Your task to perform on an android device: Go to Wikipedia Image 0: 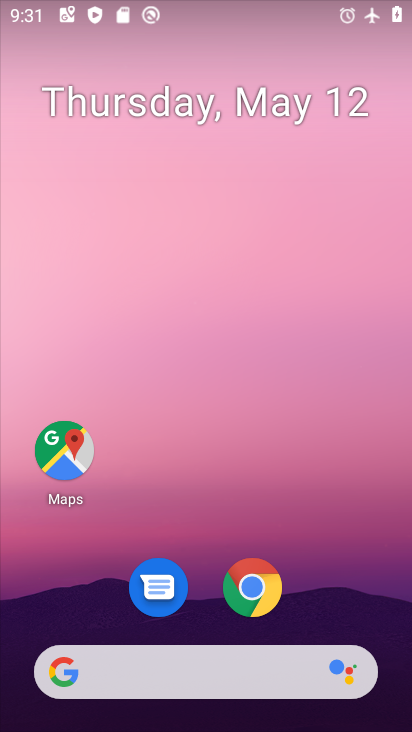
Step 0: drag from (331, 615) to (380, 174)
Your task to perform on an android device: Go to Wikipedia Image 1: 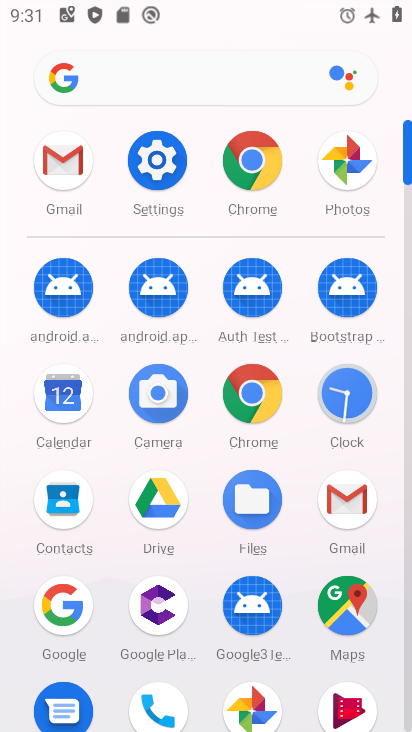
Step 1: click (254, 156)
Your task to perform on an android device: Go to Wikipedia Image 2: 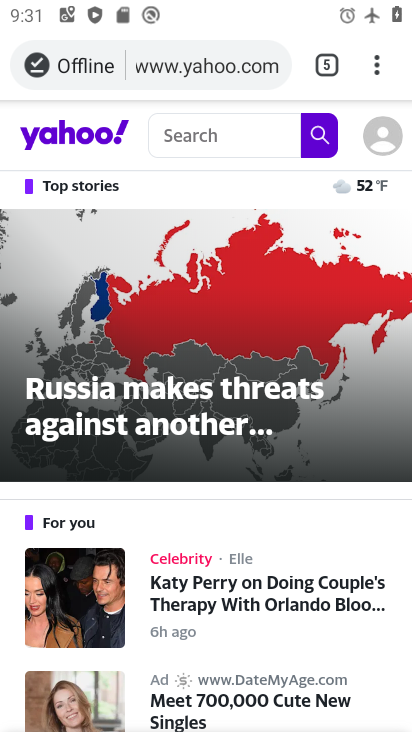
Step 2: click (368, 58)
Your task to perform on an android device: Go to Wikipedia Image 3: 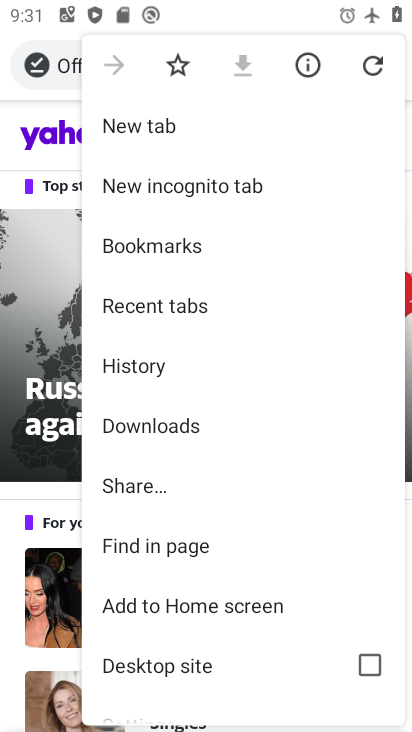
Step 3: click (159, 123)
Your task to perform on an android device: Go to Wikipedia Image 4: 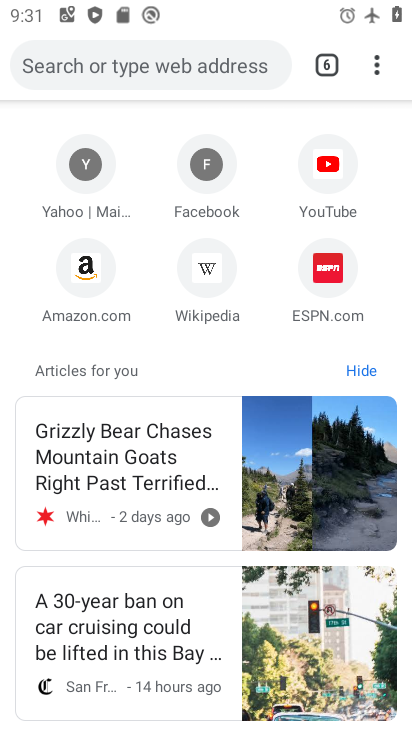
Step 4: click (206, 267)
Your task to perform on an android device: Go to Wikipedia Image 5: 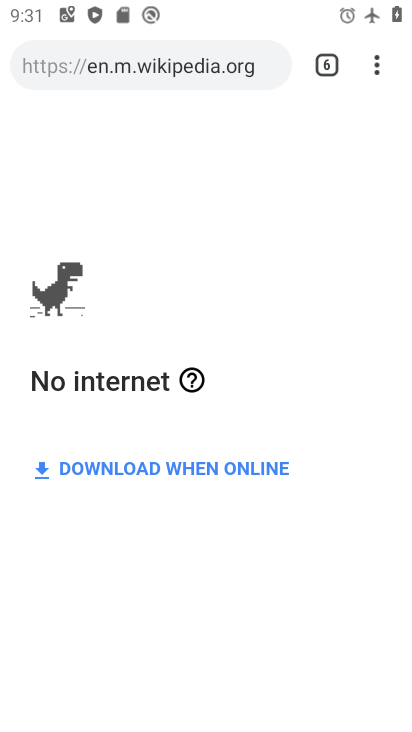
Step 5: click (369, 57)
Your task to perform on an android device: Go to Wikipedia Image 6: 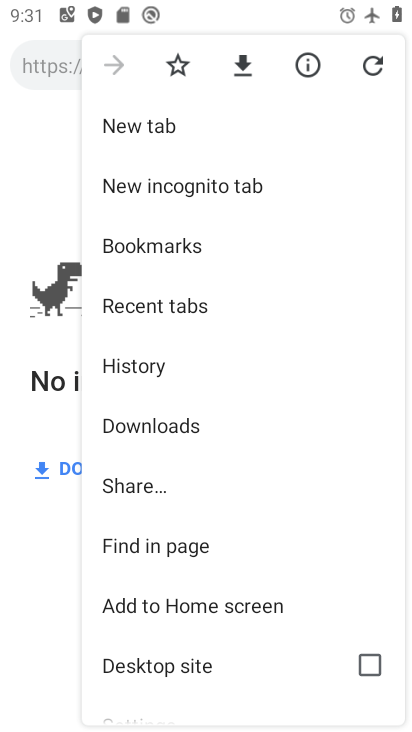
Step 6: drag from (225, 575) to (261, 317)
Your task to perform on an android device: Go to Wikipedia Image 7: 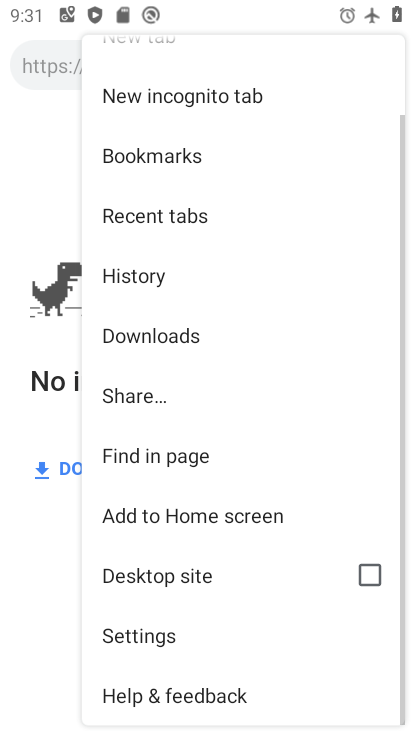
Step 7: drag from (181, 0) to (139, 441)
Your task to perform on an android device: Go to Wikipedia Image 8: 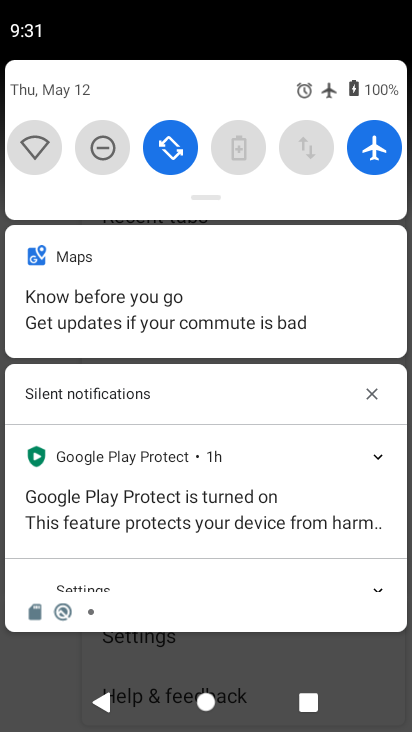
Step 8: click (377, 142)
Your task to perform on an android device: Go to Wikipedia Image 9: 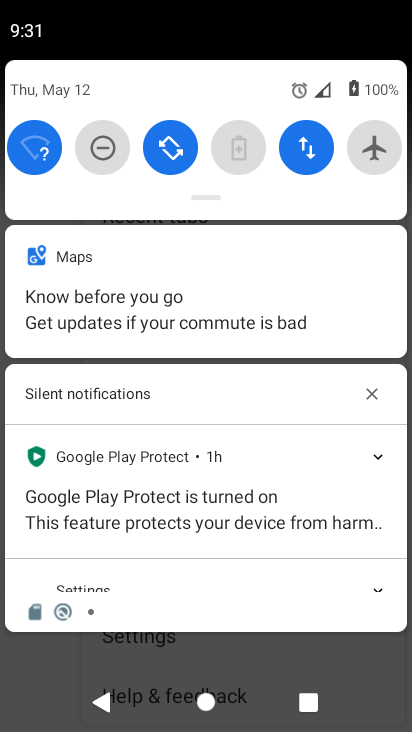
Step 9: click (205, 648)
Your task to perform on an android device: Go to Wikipedia Image 10: 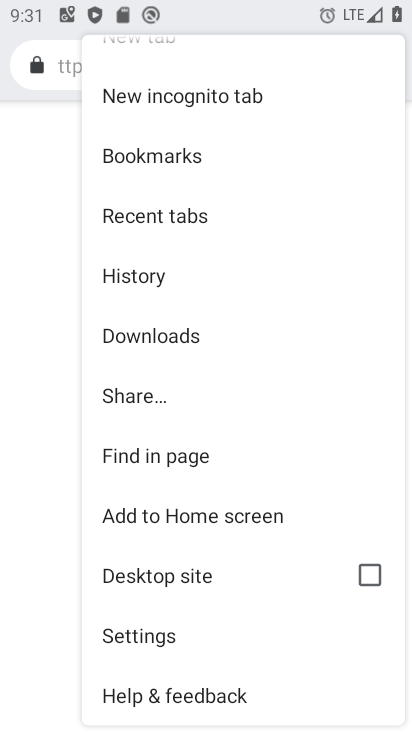
Step 10: click (42, 196)
Your task to perform on an android device: Go to Wikipedia Image 11: 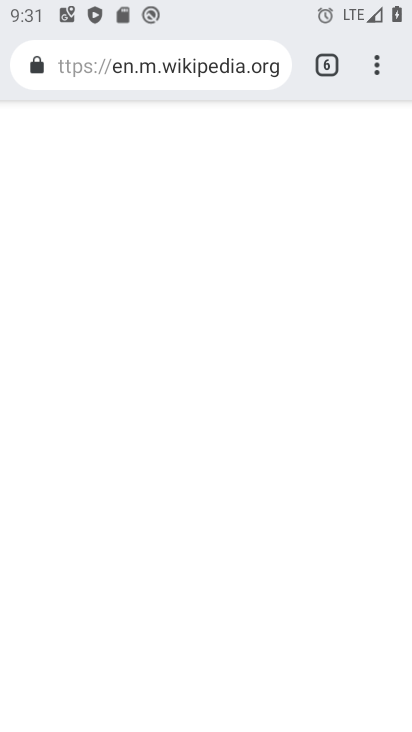
Step 11: click (40, 197)
Your task to perform on an android device: Go to Wikipedia Image 12: 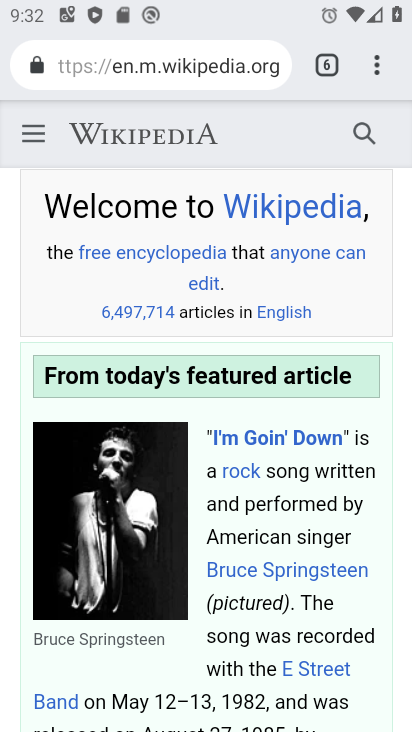
Step 12: task complete